Your task to perform on an android device: set the stopwatch Image 0: 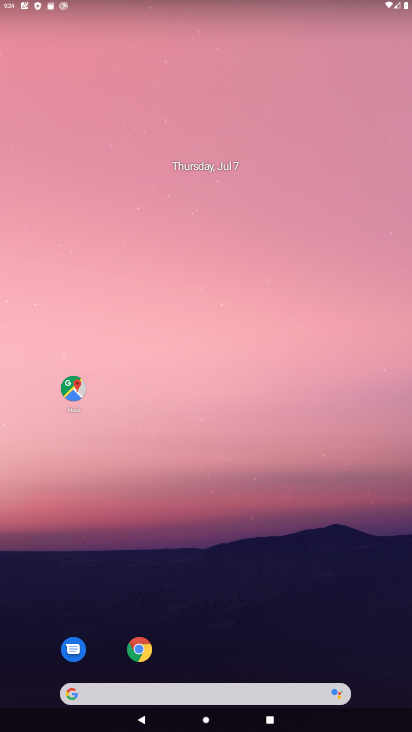
Step 0: drag from (300, 606) to (362, 169)
Your task to perform on an android device: set the stopwatch Image 1: 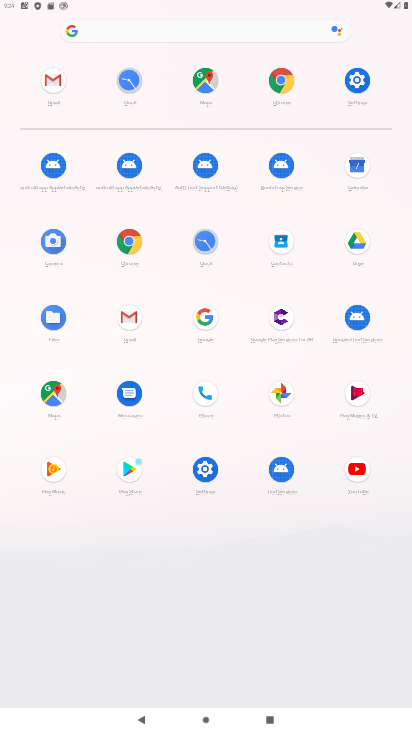
Step 1: click (204, 246)
Your task to perform on an android device: set the stopwatch Image 2: 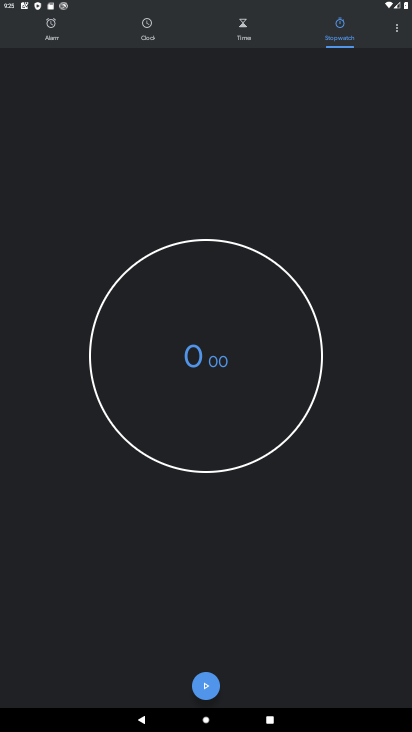
Step 2: click (397, 31)
Your task to perform on an android device: set the stopwatch Image 3: 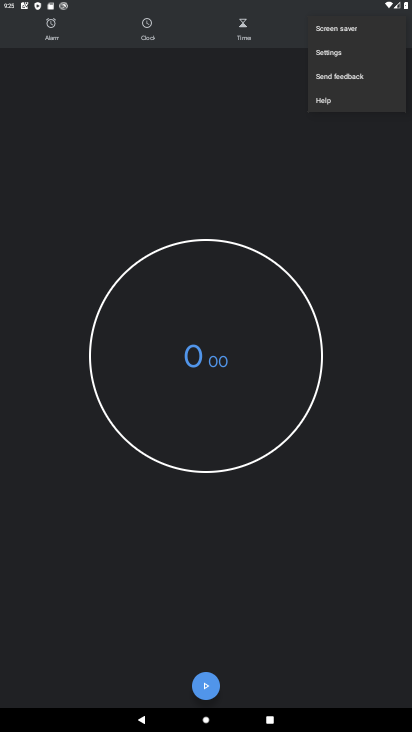
Step 3: task complete